Your task to perform on an android device: Turn on the flashlight Image 0: 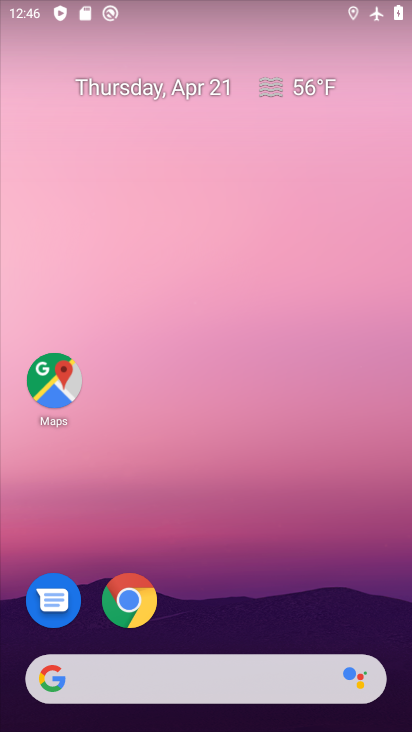
Step 0: drag from (364, 499) to (345, 167)
Your task to perform on an android device: Turn on the flashlight Image 1: 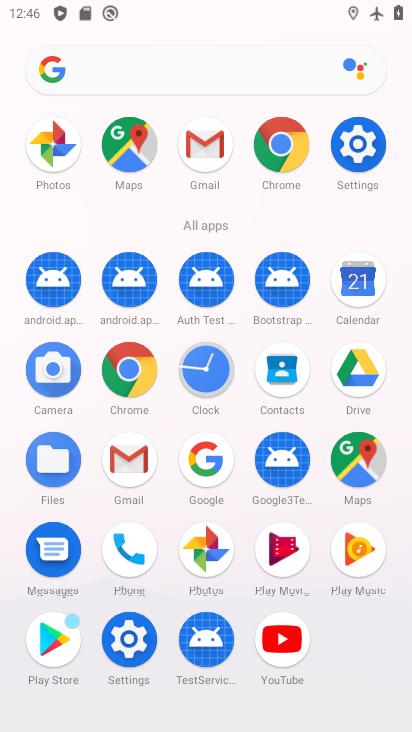
Step 1: click (347, 151)
Your task to perform on an android device: Turn on the flashlight Image 2: 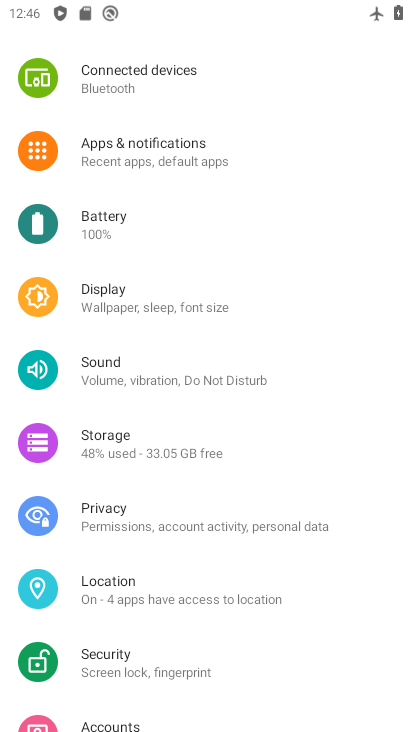
Step 2: click (96, 286)
Your task to perform on an android device: Turn on the flashlight Image 3: 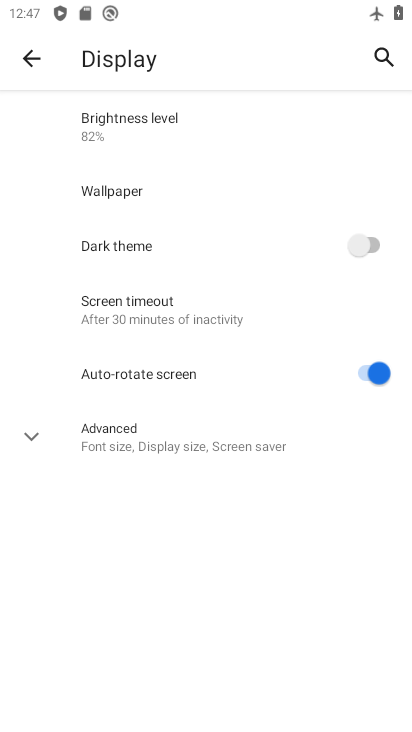
Step 3: task complete